Your task to perform on an android device: Go to wifi settings Image 0: 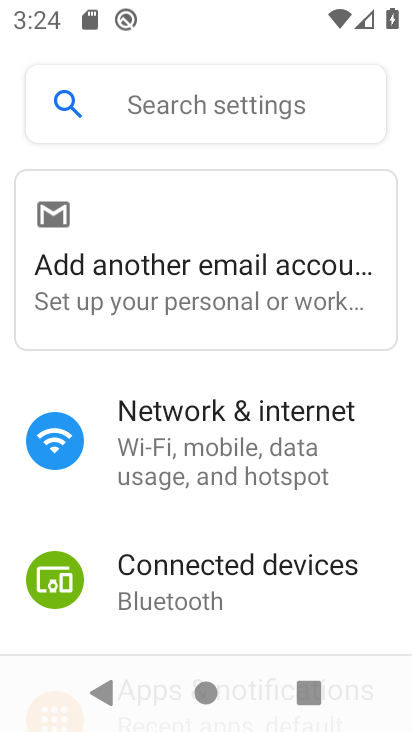
Step 0: click (248, 467)
Your task to perform on an android device: Go to wifi settings Image 1: 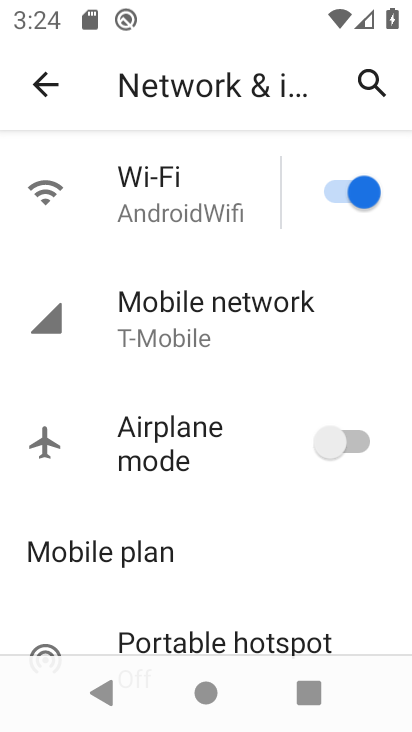
Step 1: click (213, 196)
Your task to perform on an android device: Go to wifi settings Image 2: 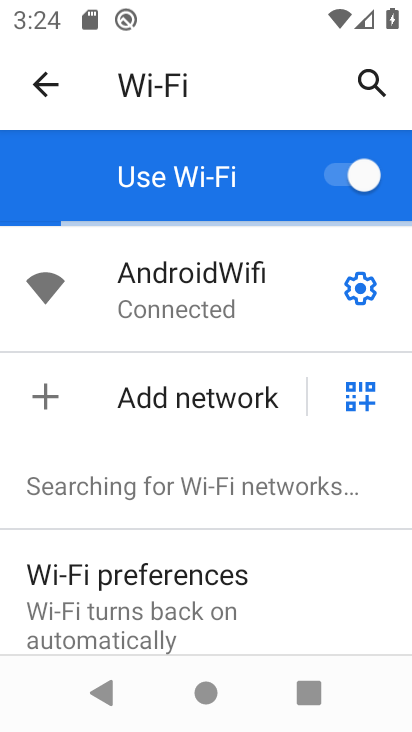
Step 2: task complete